Your task to perform on an android device: What's on my calendar today? Image 0: 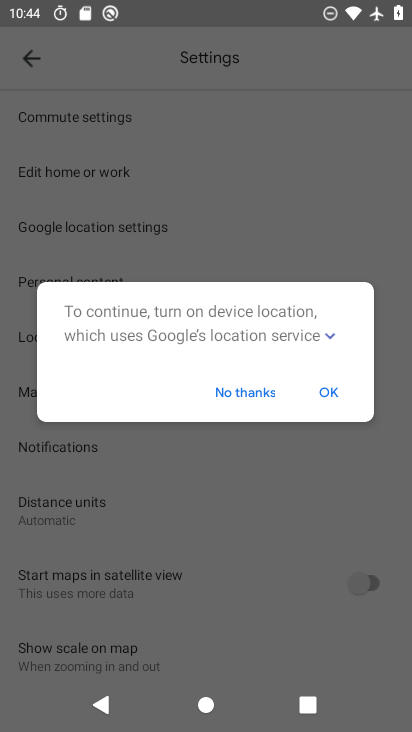
Step 0: press home button
Your task to perform on an android device: What's on my calendar today? Image 1: 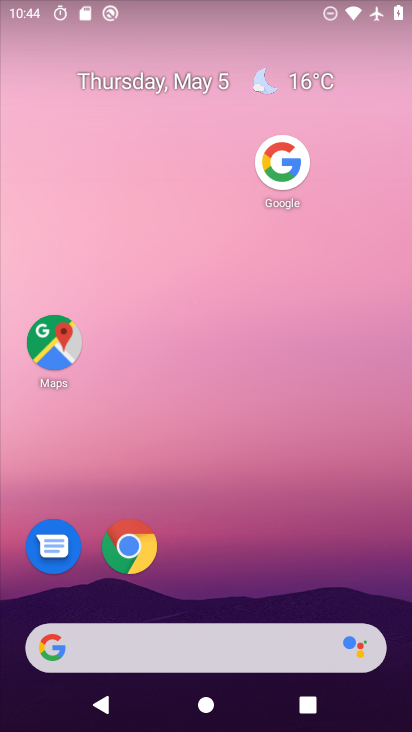
Step 1: drag from (169, 650) to (290, 94)
Your task to perform on an android device: What's on my calendar today? Image 2: 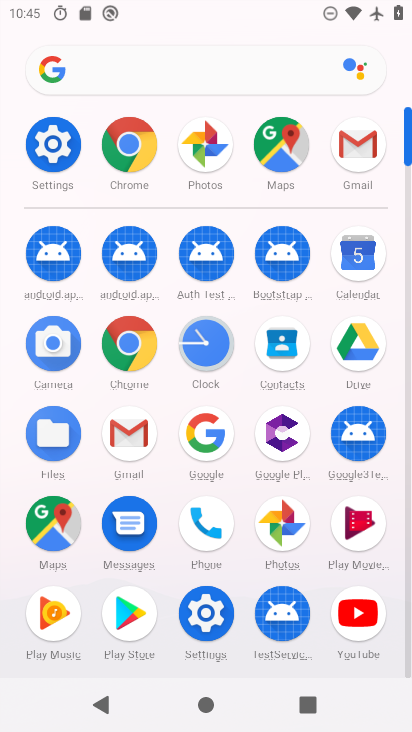
Step 2: click (365, 270)
Your task to perform on an android device: What's on my calendar today? Image 3: 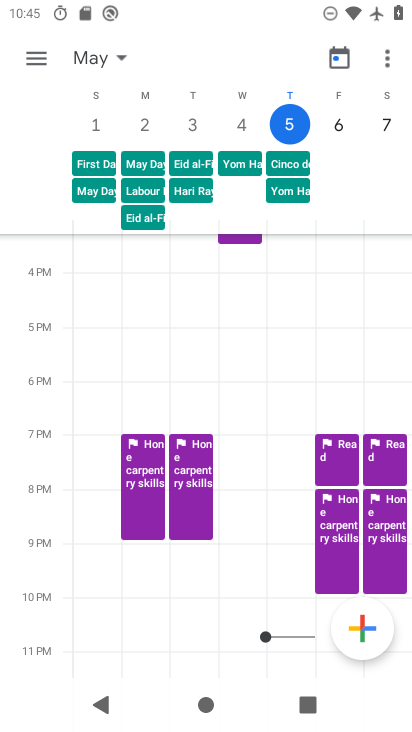
Step 3: click (89, 54)
Your task to perform on an android device: What's on my calendar today? Image 4: 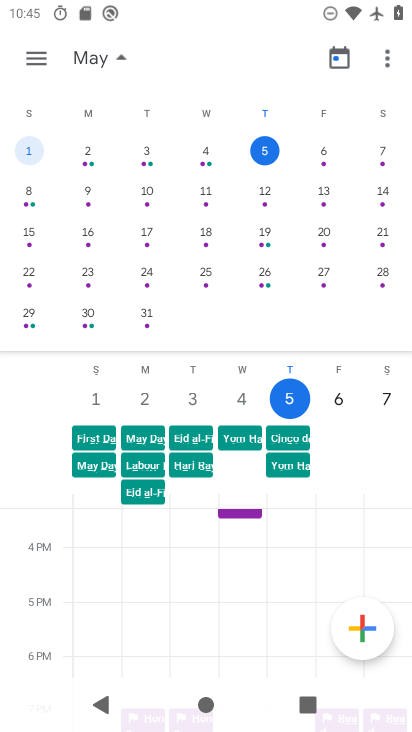
Step 4: click (322, 148)
Your task to perform on an android device: What's on my calendar today? Image 5: 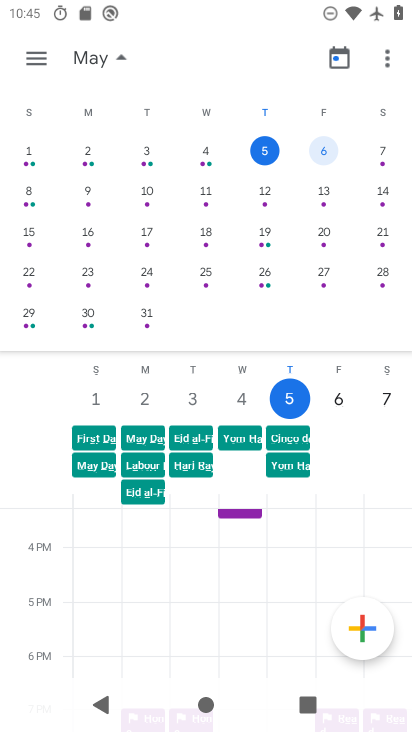
Step 5: click (265, 149)
Your task to perform on an android device: What's on my calendar today? Image 6: 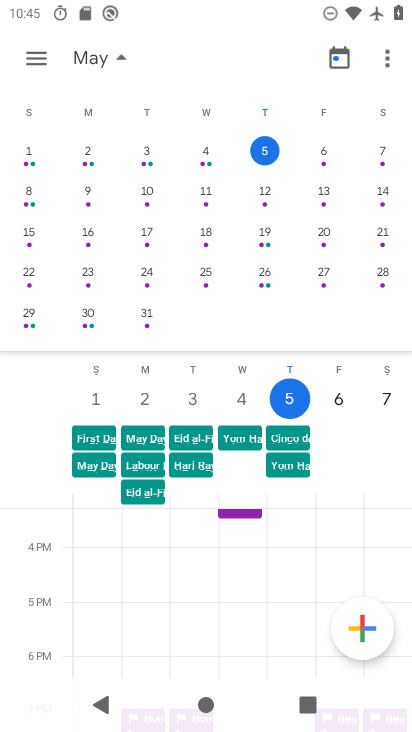
Step 6: click (38, 56)
Your task to perform on an android device: What's on my calendar today? Image 7: 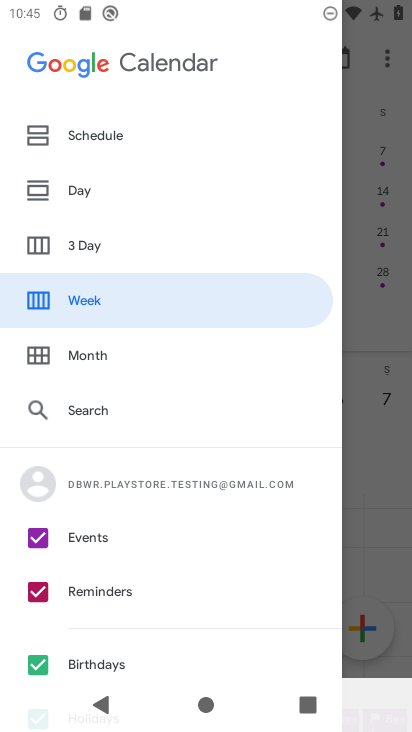
Step 7: click (83, 189)
Your task to perform on an android device: What's on my calendar today? Image 8: 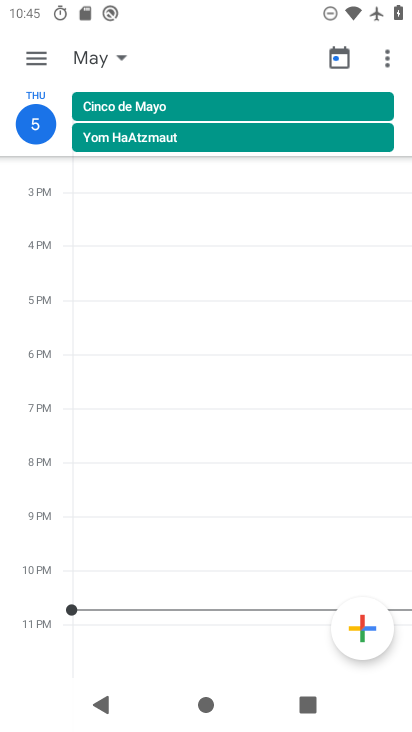
Step 8: click (37, 64)
Your task to perform on an android device: What's on my calendar today? Image 9: 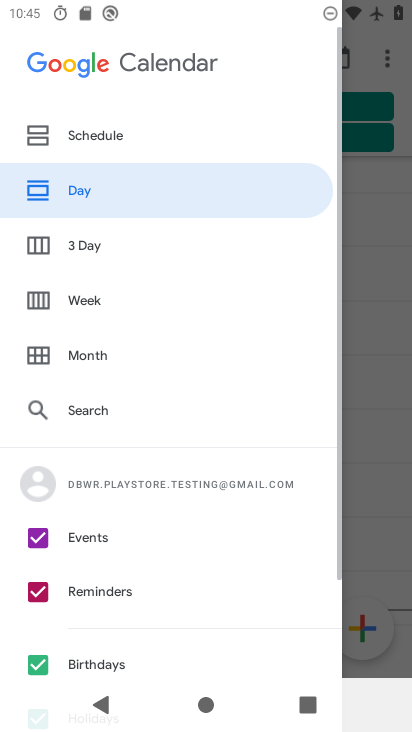
Step 9: click (103, 132)
Your task to perform on an android device: What's on my calendar today? Image 10: 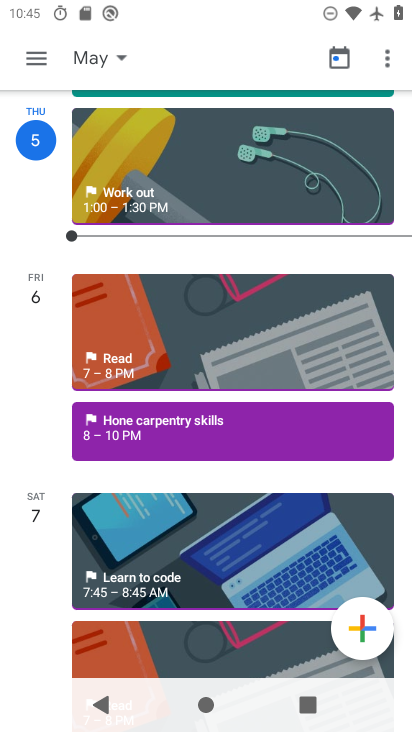
Step 10: task complete